Your task to perform on an android device: allow notifications from all sites in the chrome app Image 0: 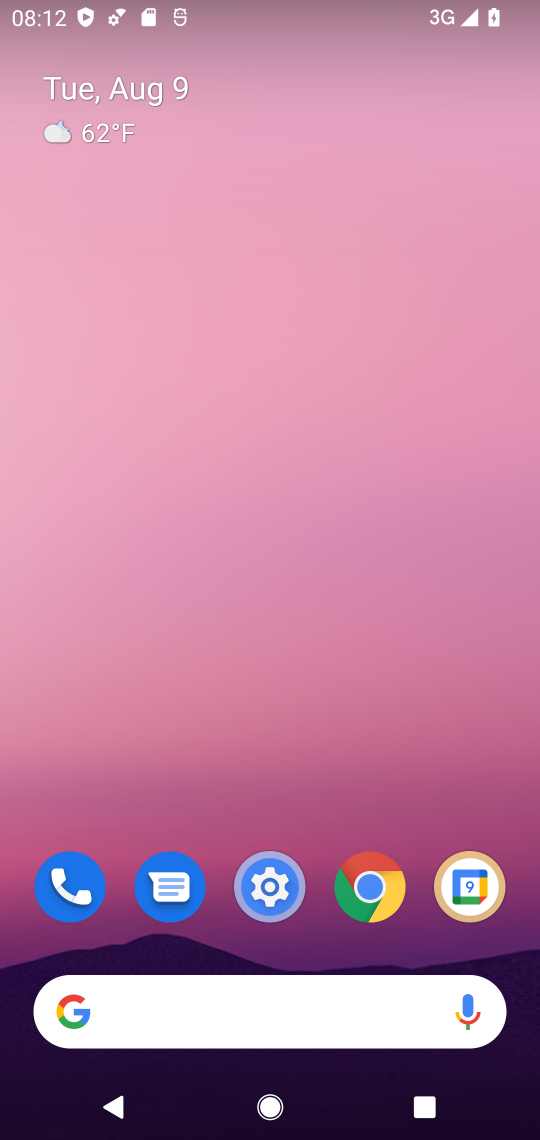
Step 0: click (382, 884)
Your task to perform on an android device: allow notifications from all sites in the chrome app Image 1: 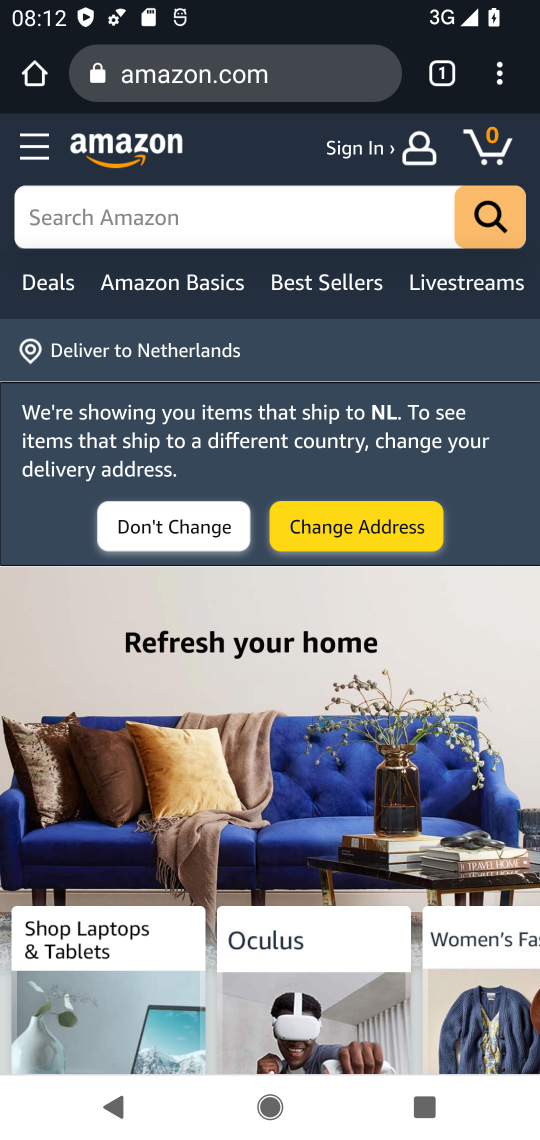
Step 1: click (501, 82)
Your task to perform on an android device: allow notifications from all sites in the chrome app Image 2: 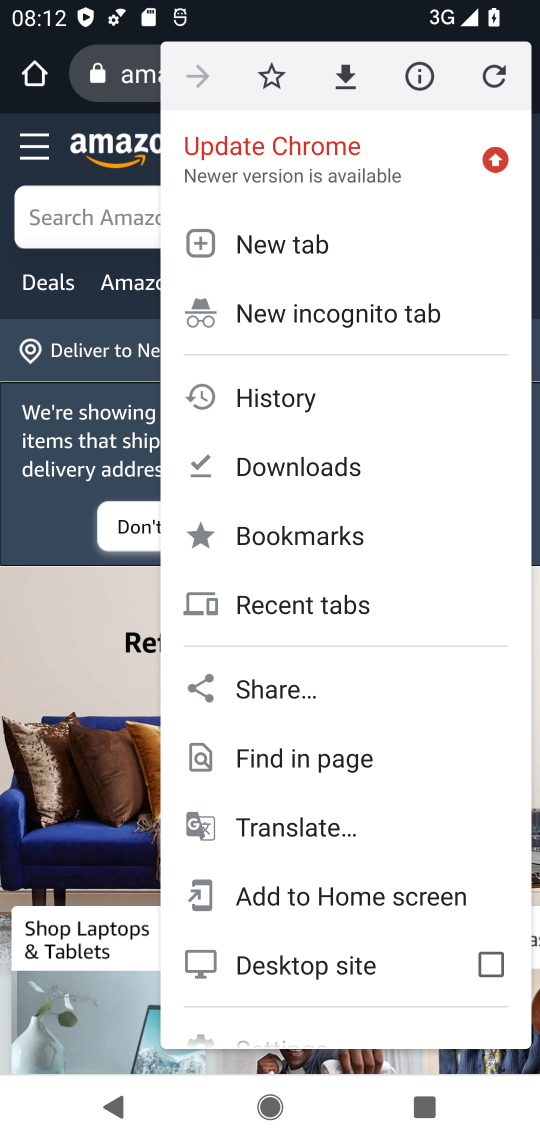
Step 2: drag from (379, 778) to (367, 136)
Your task to perform on an android device: allow notifications from all sites in the chrome app Image 3: 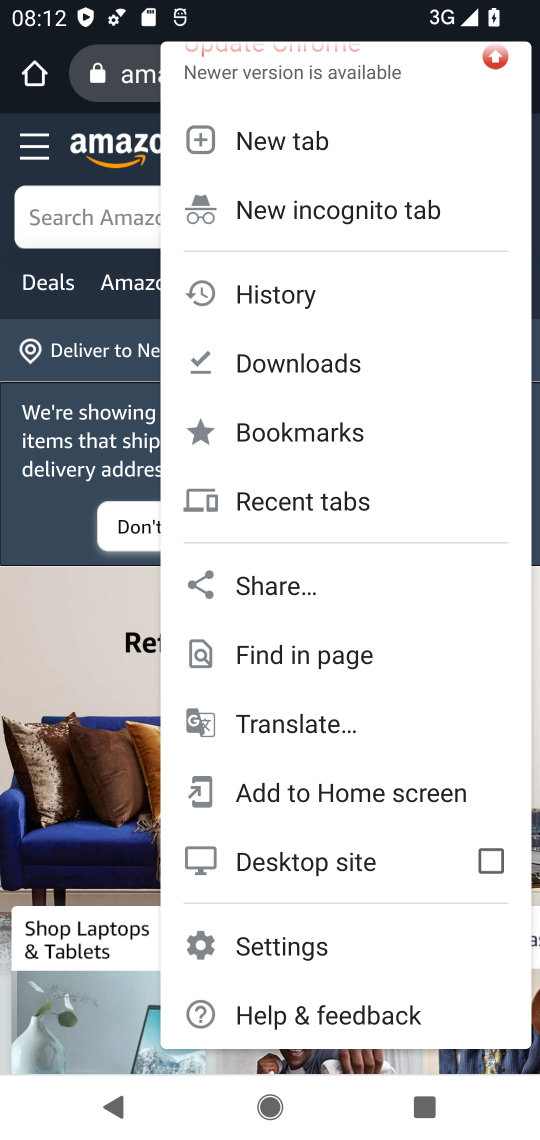
Step 3: click (311, 946)
Your task to perform on an android device: allow notifications from all sites in the chrome app Image 4: 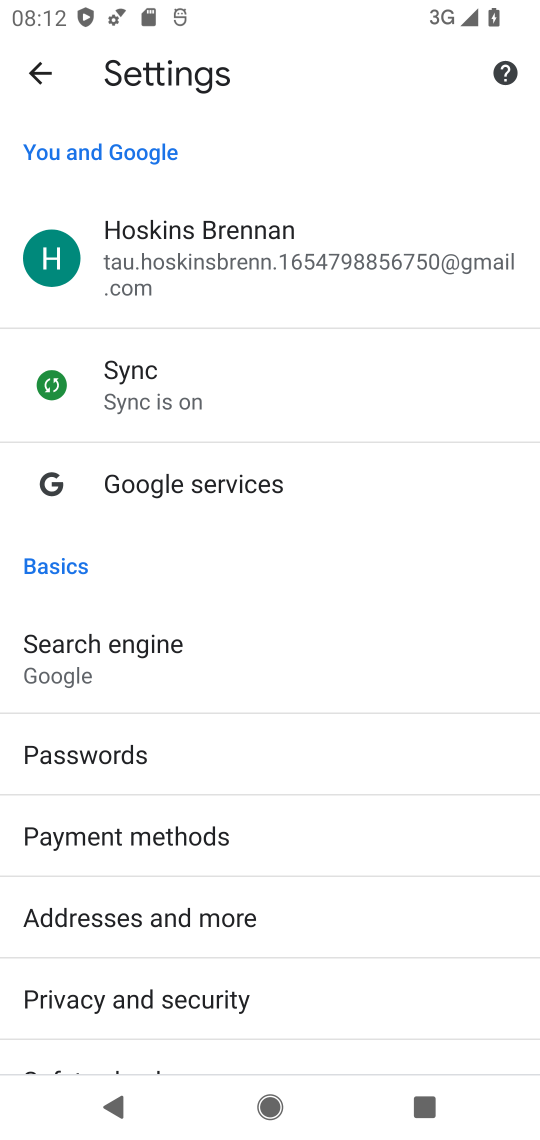
Step 4: drag from (303, 906) to (254, 350)
Your task to perform on an android device: allow notifications from all sites in the chrome app Image 5: 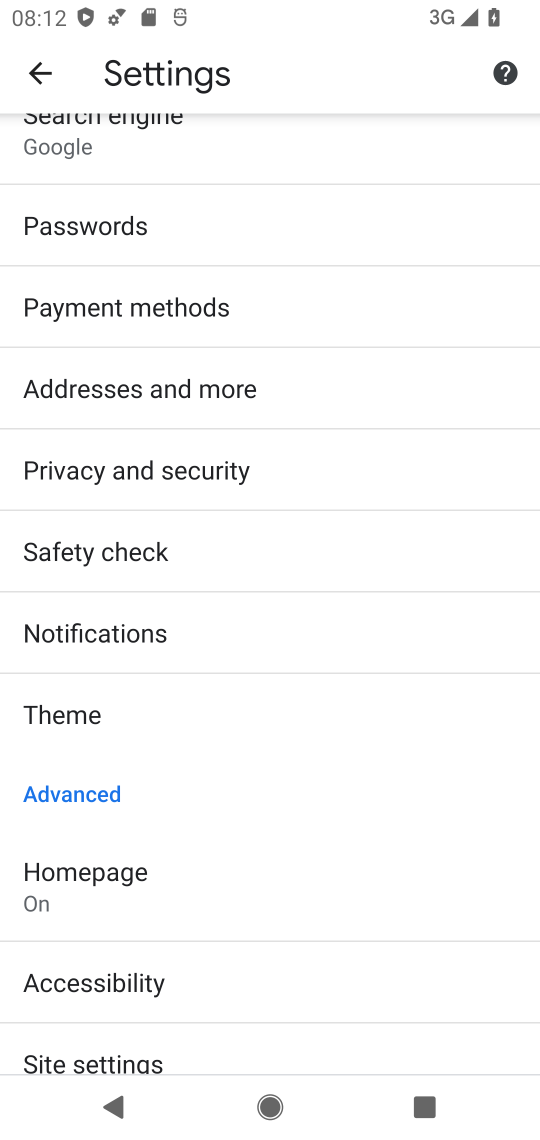
Step 5: click (278, 622)
Your task to perform on an android device: allow notifications from all sites in the chrome app Image 6: 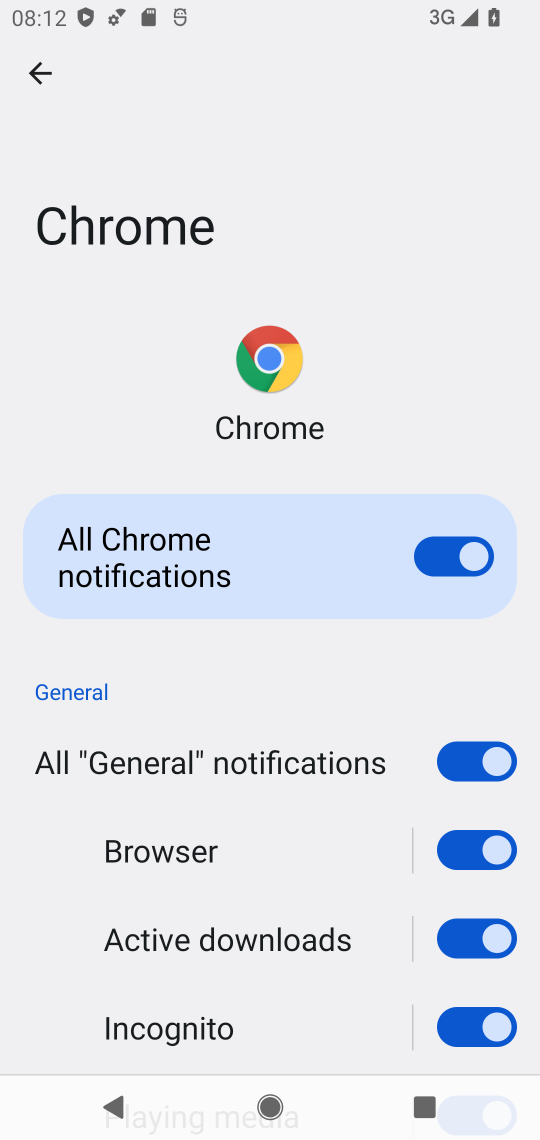
Step 6: task complete